Your task to perform on an android device: Turn on the flashlight Image 0: 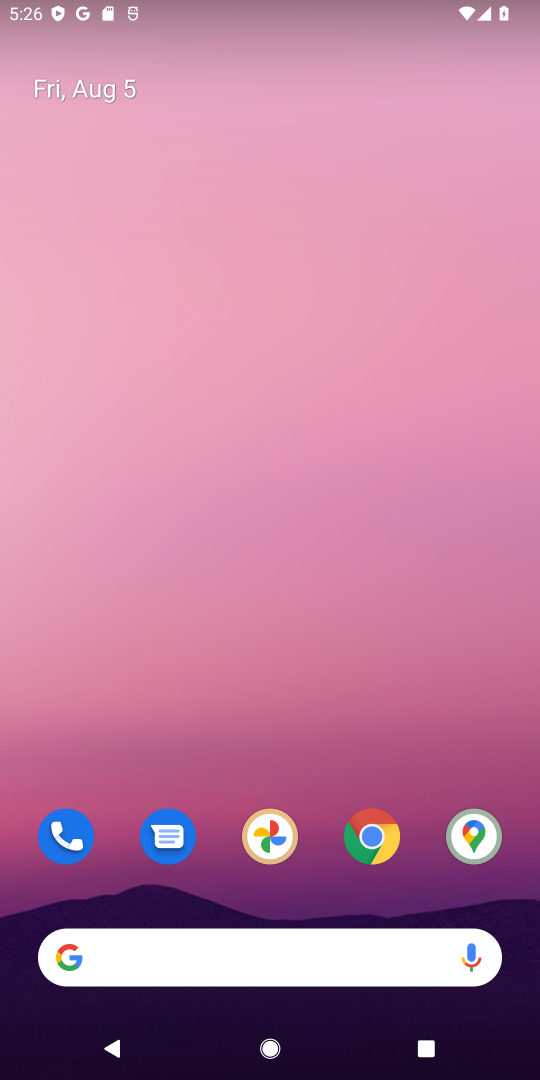
Step 0: press home button
Your task to perform on an android device: Turn on the flashlight Image 1: 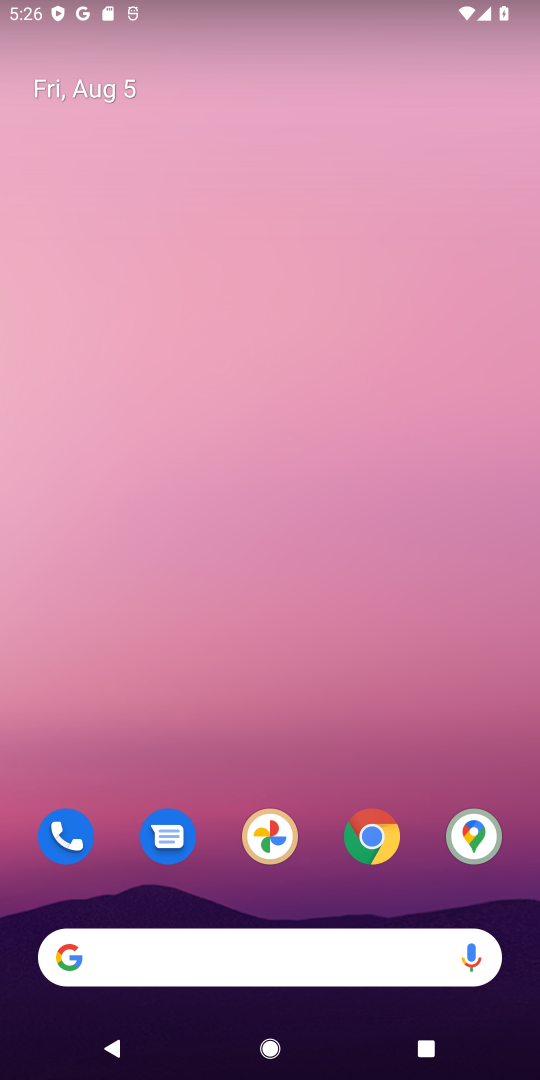
Step 1: drag from (321, 885) to (347, 42)
Your task to perform on an android device: Turn on the flashlight Image 2: 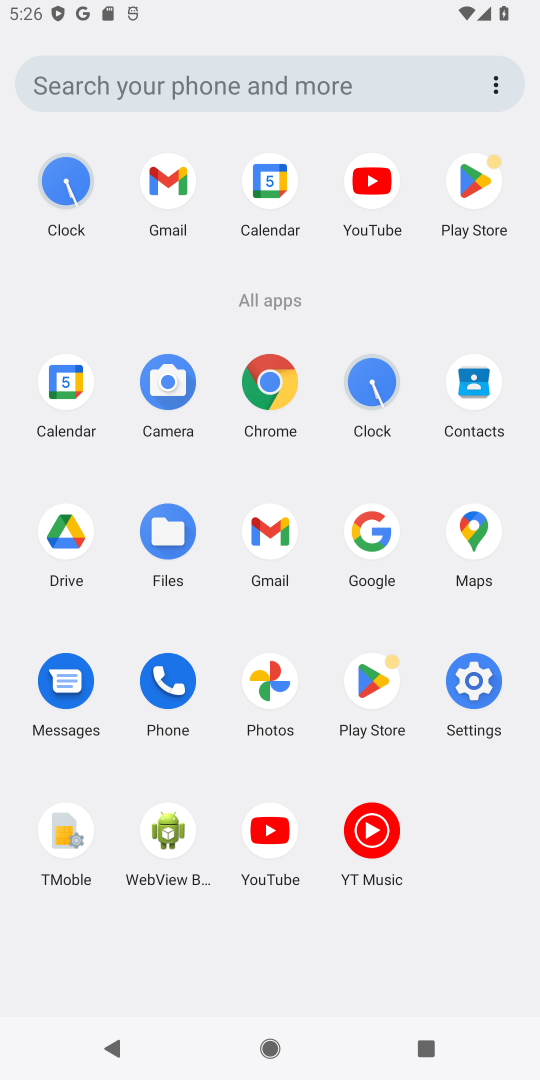
Step 2: click (465, 675)
Your task to perform on an android device: Turn on the flashlight Image 3: 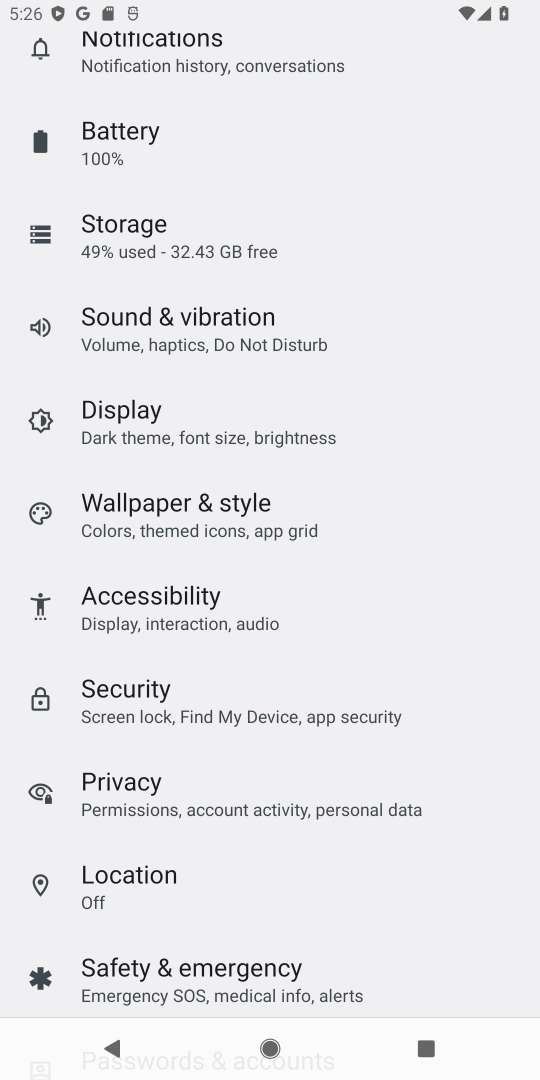
Step 3: drag from (182, 156) to (208, 895)
Your task to perform on an android device: Turn on the flashlight Image 4: 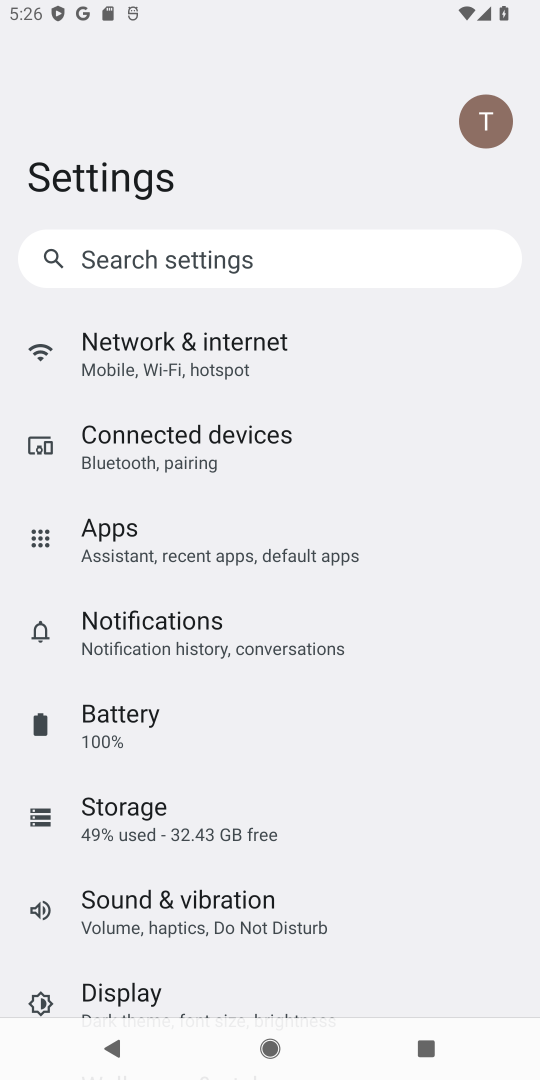
Step 4: click (144, 249)
Your task to perform on an android device: Turn on the flashlight Image 5: 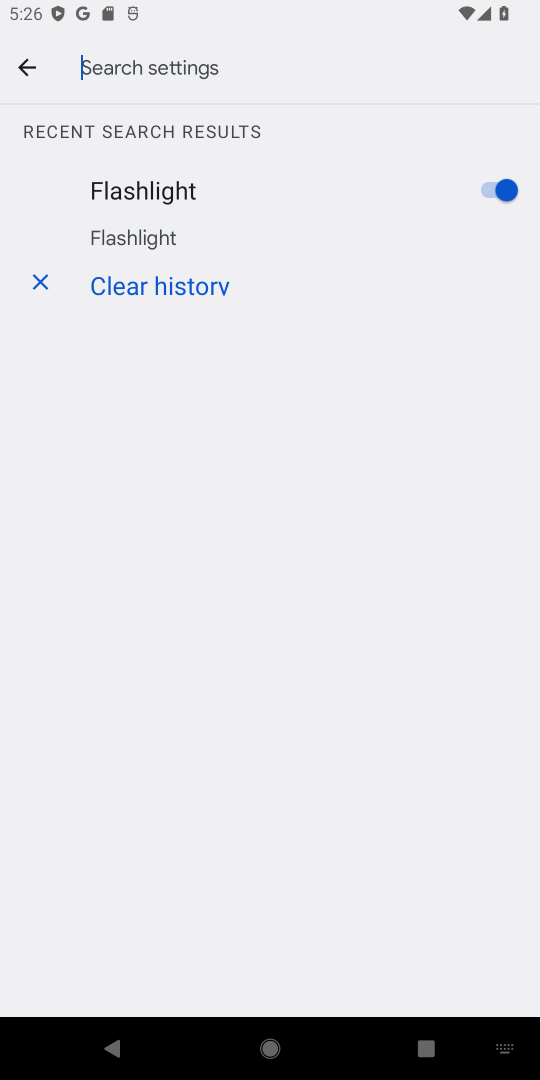
Step 5: task complete